Your task to perform on an android device: visit the assistant section in the google photos Image 0: 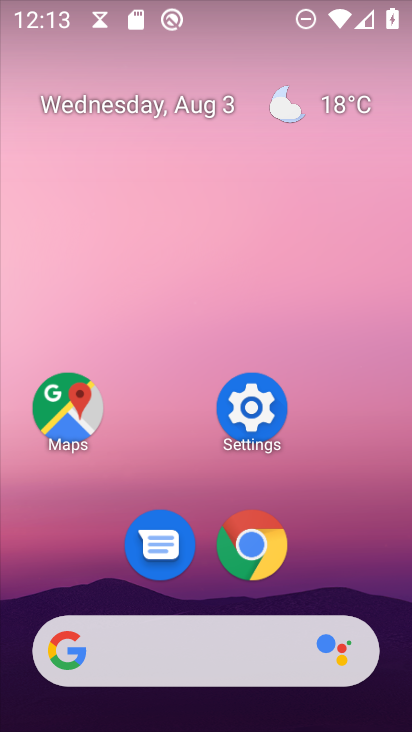
Step 0: drag from (197, 570) to (322, 88)
Your task to perform on an android device: visit the assistant section in the google photos Image 1: 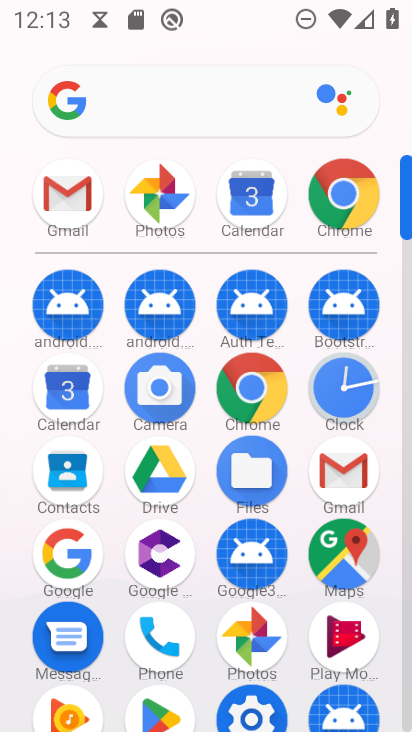
Step 1: click (174, 186)
Your task to perform on an android device: visit the assistant section in the google photos Image 2: 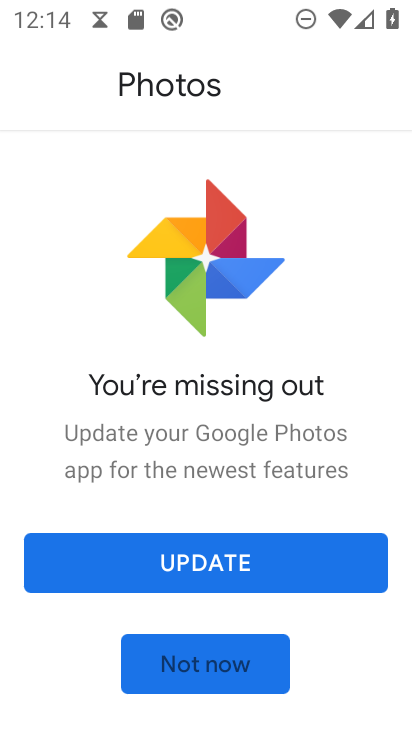
Step 2: click (213, 558)
Your task to perform on an android device: visit the assistant section in the google photos Image 3: 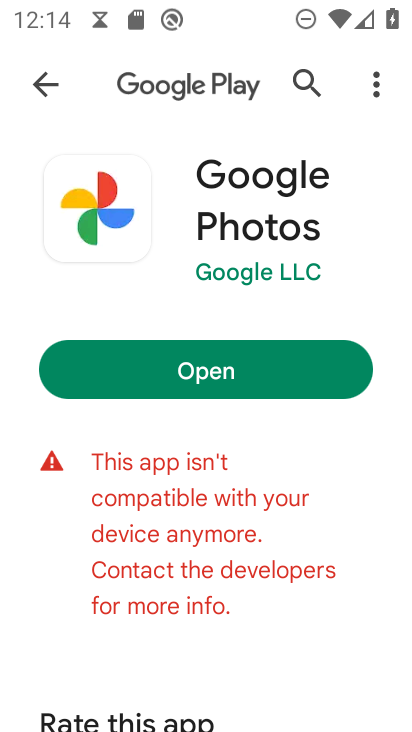
Step 3: task complete